Your task to perform on an android device: turn off smart reply in the gmail app Image 0: 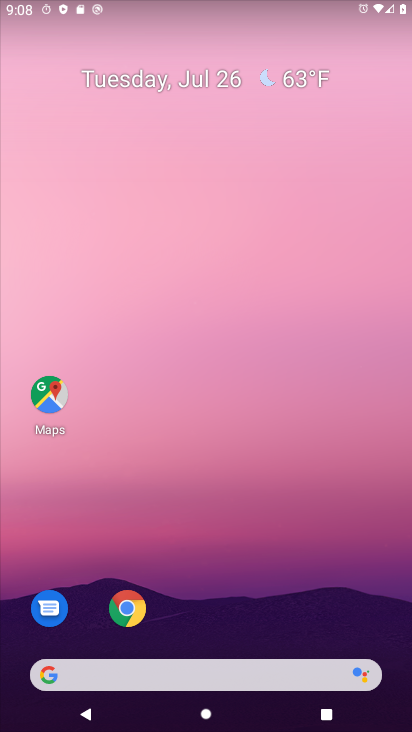
Step 0: drag from (264, 602) to (262, 198)
Your task to perform on an android device: turn off smart reply in the gmail app Image 1: 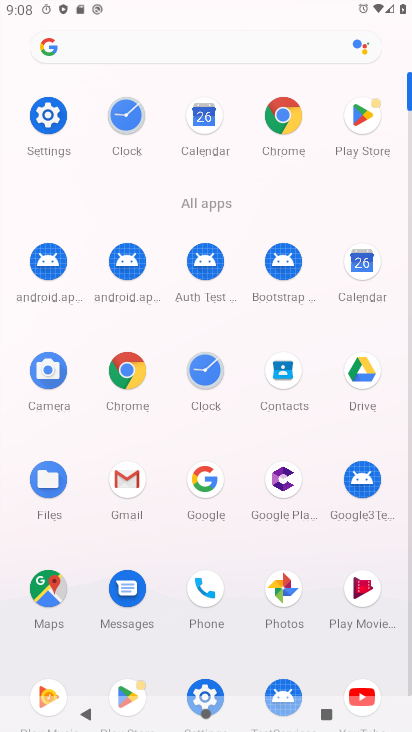
Step 1: click (124, 476)
Your task to perform on an android device: turn off smart reply in the gmail app Image 2: 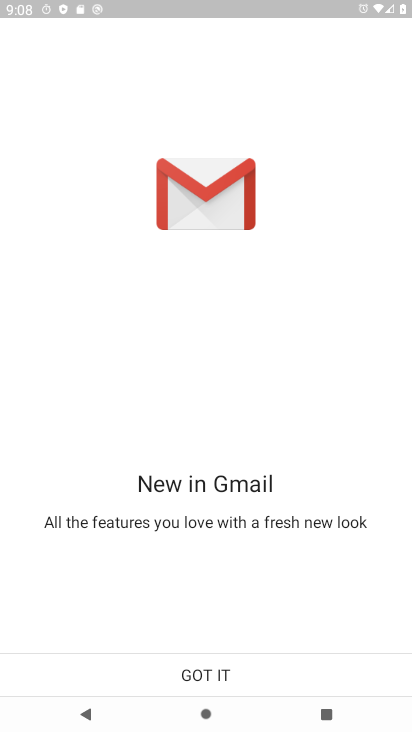
Step 2: click (278, 673)
Your task to perform on an android device: turn off smart reply in the gmail app Image 3: 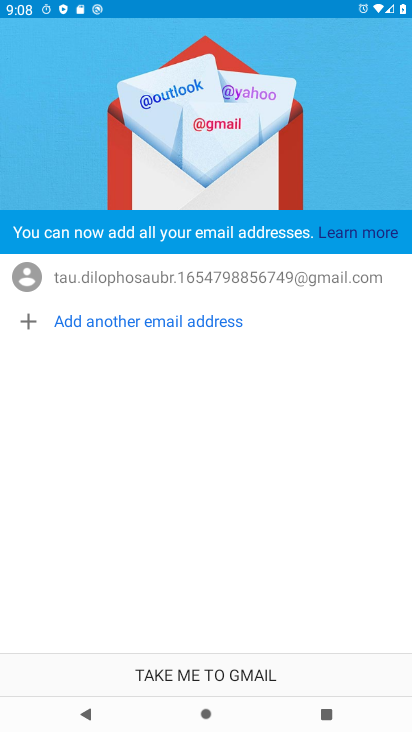
Step 3: click (278, 673)
Your task to perform on an android device: turn off smart reply in the gmail app Image 4: 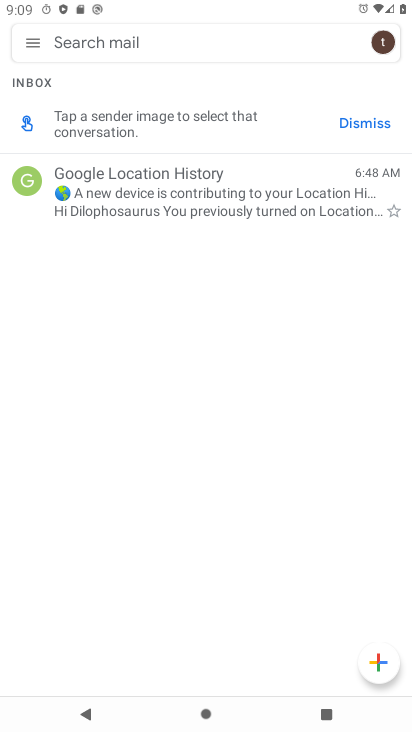
Step 4: click (35, 45)
Your task to perform on an android device: turn off smart reply in the gmail app Image 5: 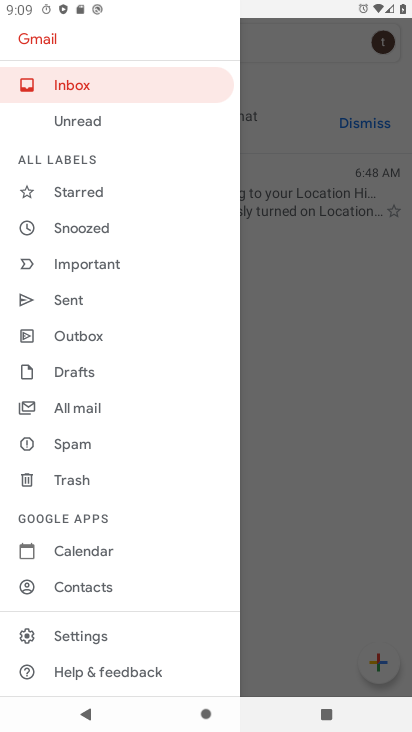
Step 5: click (87, 630)
Your task to perform on an android device: turn off smart reply in the gmail app Image 6: 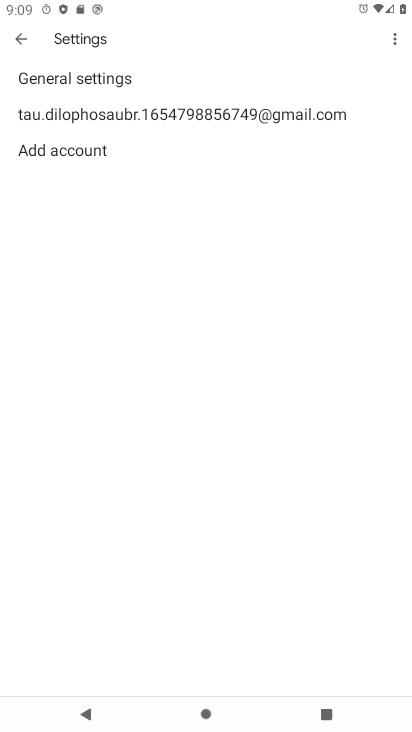
Step 6: click (158, 111)
Your task to perform on an android device: turn off smart reply in the gmail app Image 7: 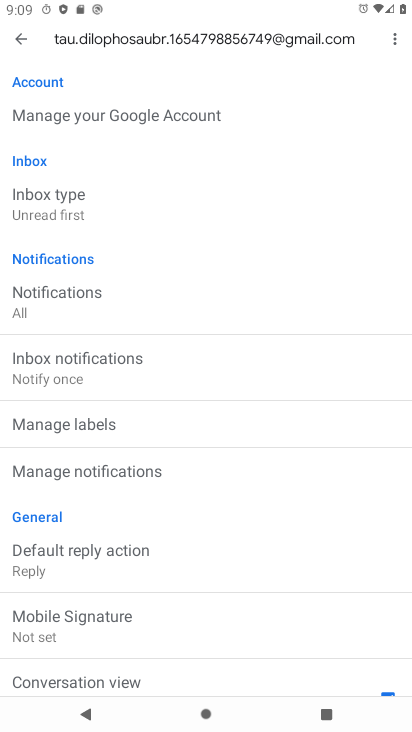
Step 7: drag from (290, 572) to (223, 278)
Your task to perform on an android device: turn off smart reply in the gmail app Image 8: 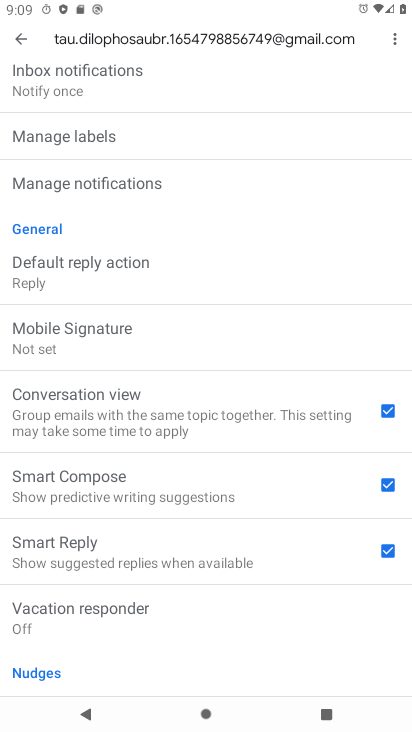
Step 8: click (391, 554)
Your task to perform on an android device: turn off smart reply in the gmail app Image 9: 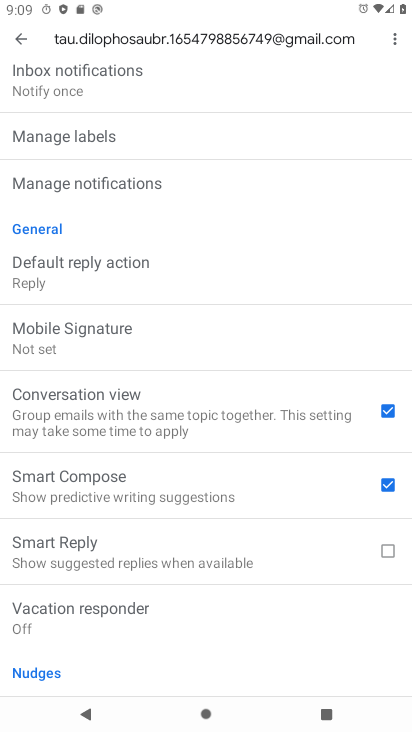
Step 9: task complete